Your task to perform on an android device: Go to eBay Image 0: 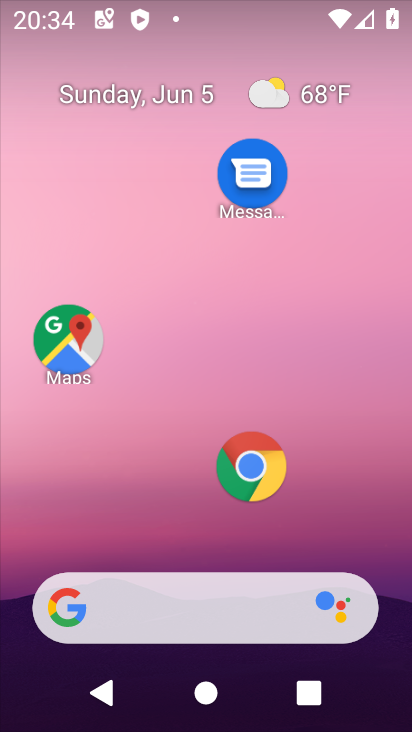
Step 0: drag from (191, 545) to (197, 15)
Your task to perform on an android device: Go to eBay Image 1: 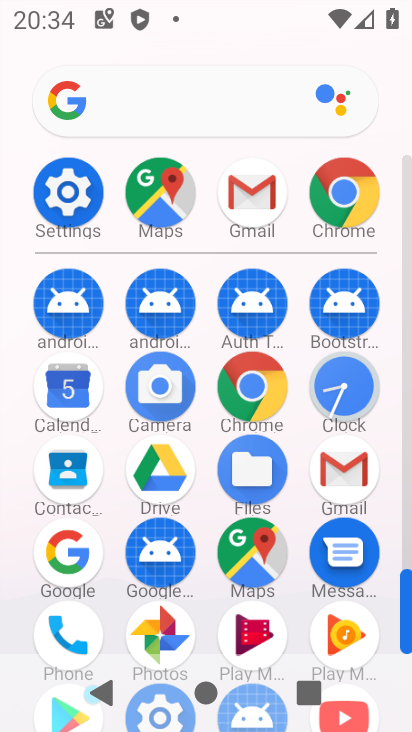
Step 1: click (169, 109)
Your task to perform on an android device: Go to eBay Image 2: 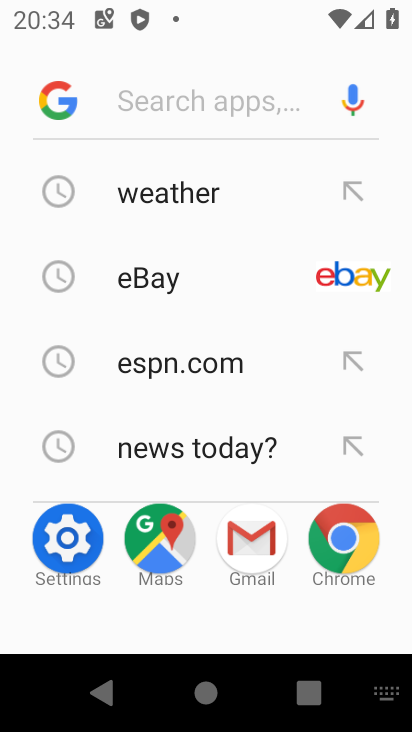
Step 2: click (234, 266)
Your task to perform on an android device: Go to eBay Image 3: 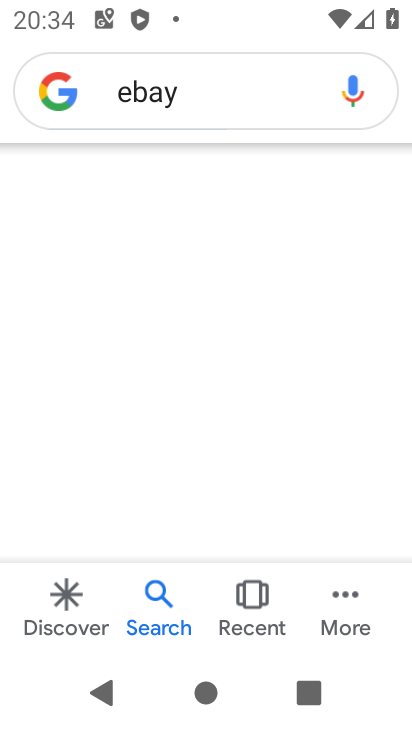
Step 3: drag from (231, 485) to (350, 83)
Your task to perform on an android device: Go to eBay Image 4: 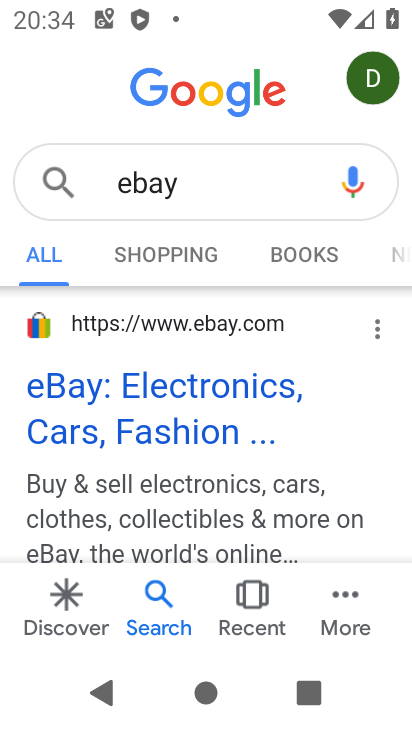
Step 4: click (95, 396)
Your task to perform on an android device: Go to eBay Image 5: 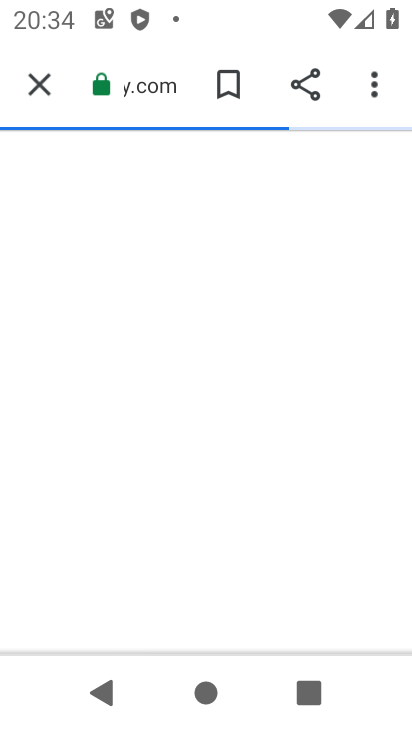
Step 5: task complete